Your task to perform on an android device: read, delete, or share a saved page in the chrome app Image 0: 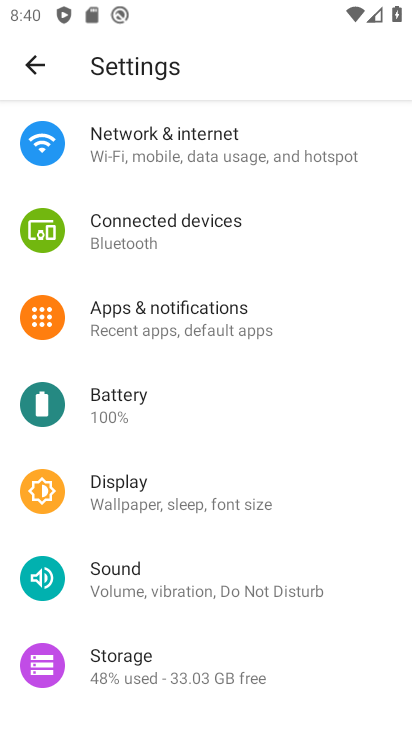
Step 0: press home button
Your task to perform on an android device: read, delete, or share a saved page in the chrome app Image 1: 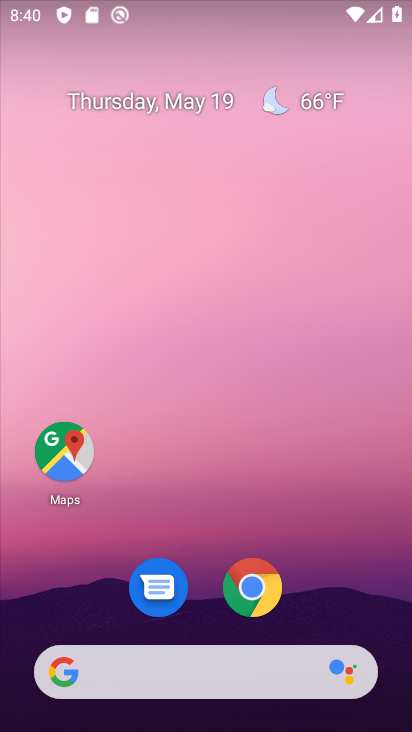
Step 1: drag from (338, 697) to (289, 206)
Your task to perform on an android device: read, delete, or share a saved page in the chrome app Image 2: 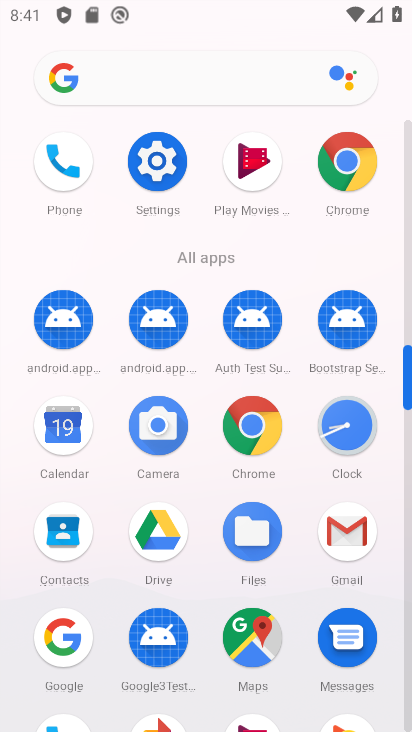
Step 2: click (346, 164)
Your task to perform on an android device: read, delete, or share a saved page in the chrome app Image 3: 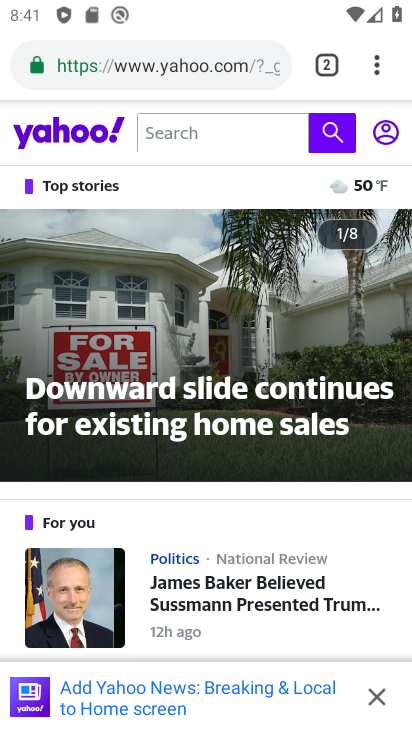
Step 3: click (388, 65)
Your task to perform on an android device: read, delete, or share a saved page in the chrome app Image 4: 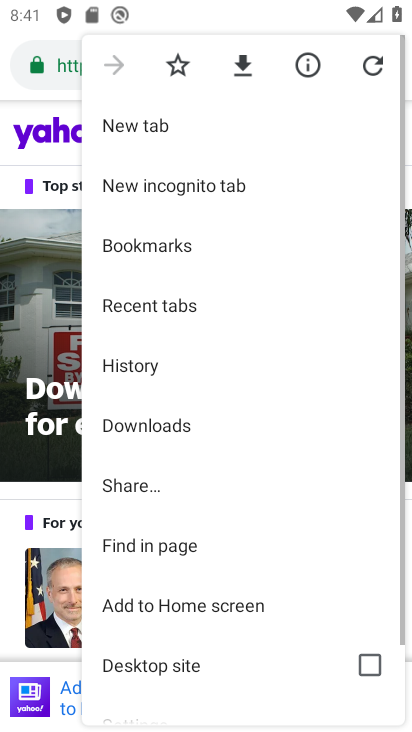
Step 4: click (136, 483)
Your task to perform on an android device: read, delete, or share a saved page in the chrome app Image 5: 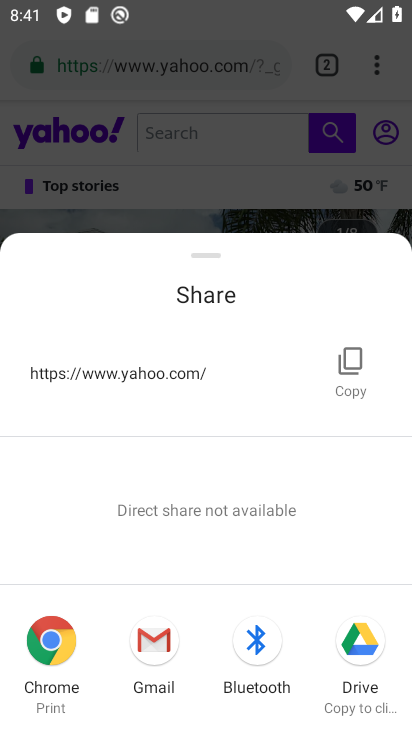
Step 5: task complete